Your task to perform on an android device: read, delete, or share a saved page in the chrome app Image 0: 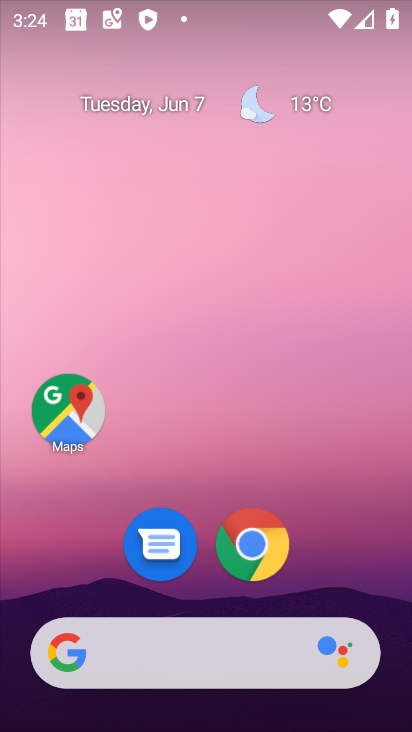
Step 0: press home button
Your task to perform on an android device: read, delete, or share a saved page in the chrome app Image 1: 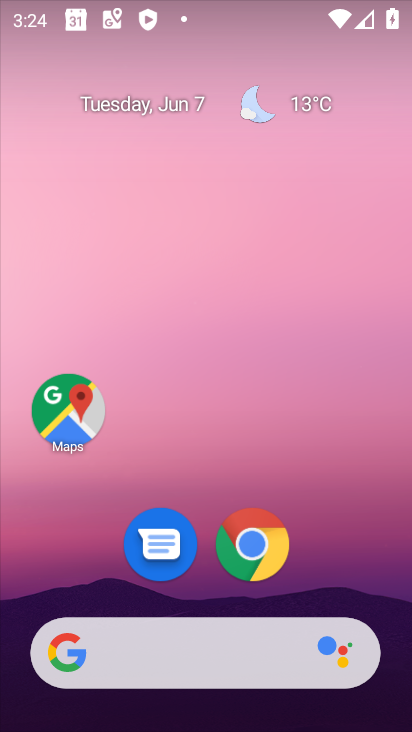
Step 1: click (246, 534)
Your task to perform on an android device: read, delete, or share a saved page in the chrome app Image 2: 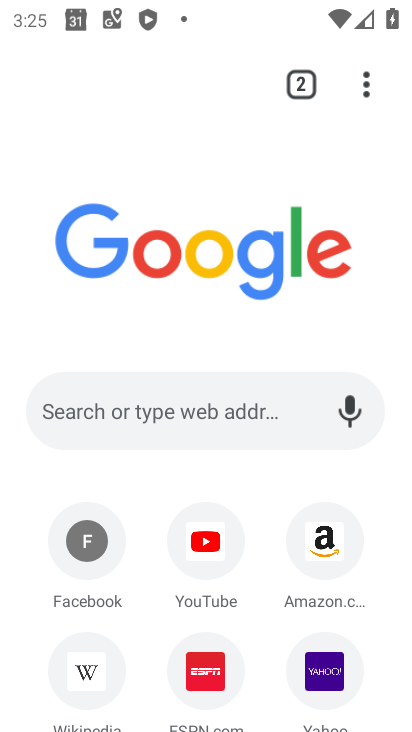
Step 2: click (364, 87)
Your task to perform on an android device: read, delete, or share a saved page in the chrome app Image 3: 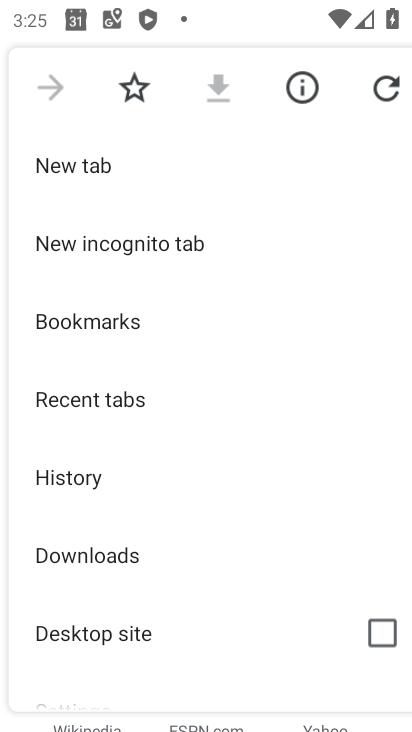
Step 3: click (156, 553)
Your task to perform on an android device: read, delete, or share a saved page in the chrome app Image 4: 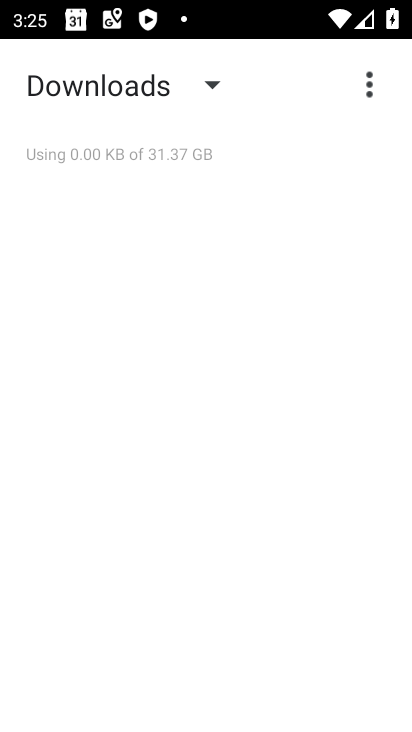
Step 4: task complete